Your task to perform on an android device: turn off priority inbox in the gmail app Image 0: 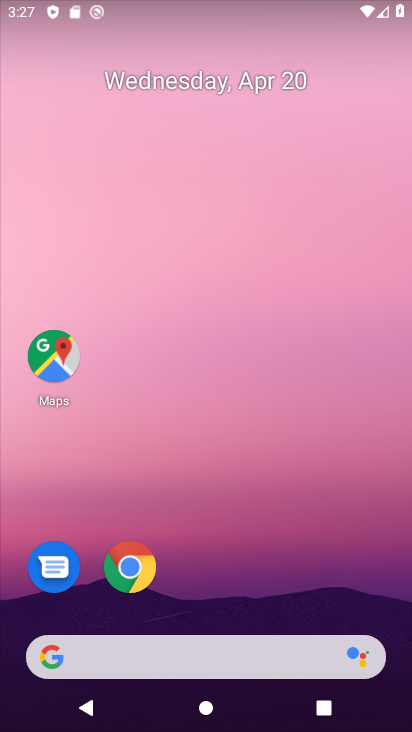
Step 0: drag from (329, 575) to (244, 112)
Your task to perform on an android device: turn off priority inbox in the gmail app Image 1: 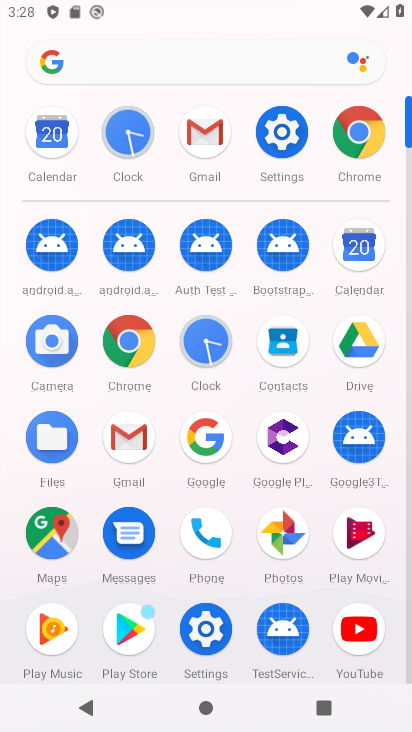
Step 1: click (214, 135)
Your task to perform on an android device: turn off priority inbox in the gmail app Image 2: 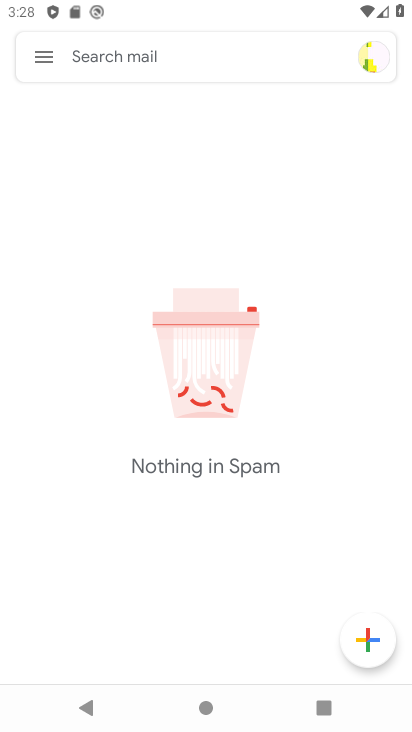
Step 2: click (37, 57)
Your task to perform on an android device: turn off priority inbox in the gmail app Image 3: 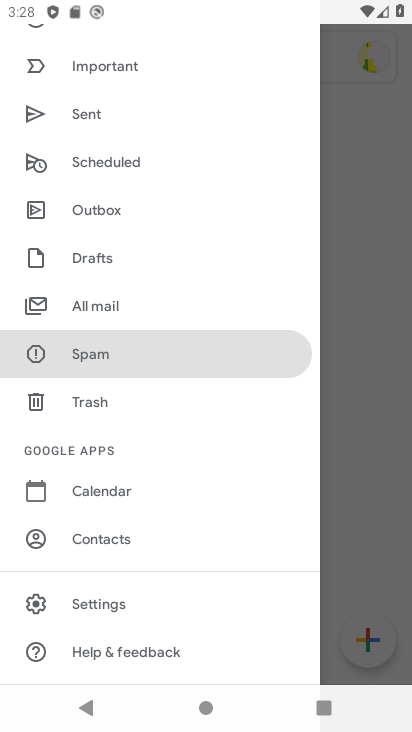
Step 3: click (127, 603)
Your task to perform on an android device: turn off priority inbox in the gmail app Image 4: 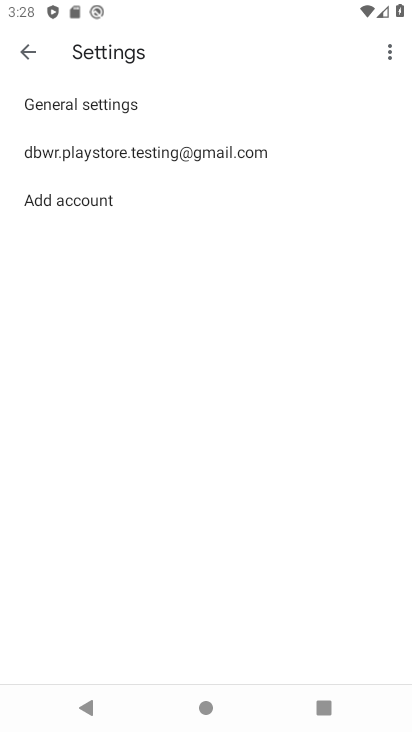
Step 4: click (242, 160)
Your task to perform on an android device: turn off priority inbox in the gmail app Image 5: 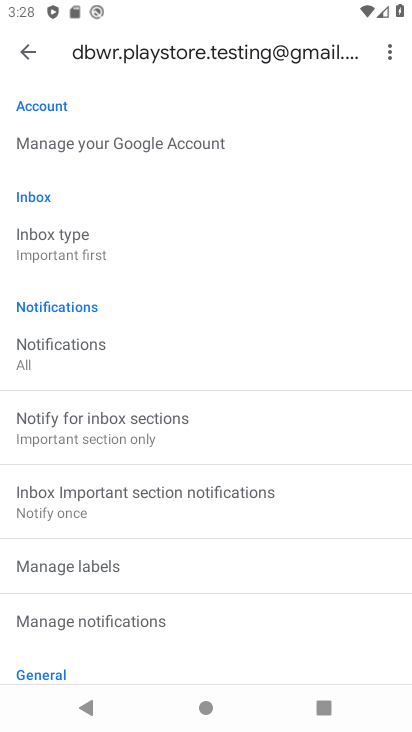
Step 5: click (202, 251)
Your task to perform on an android device: turn off priority inbox in the gmail app Image 6: 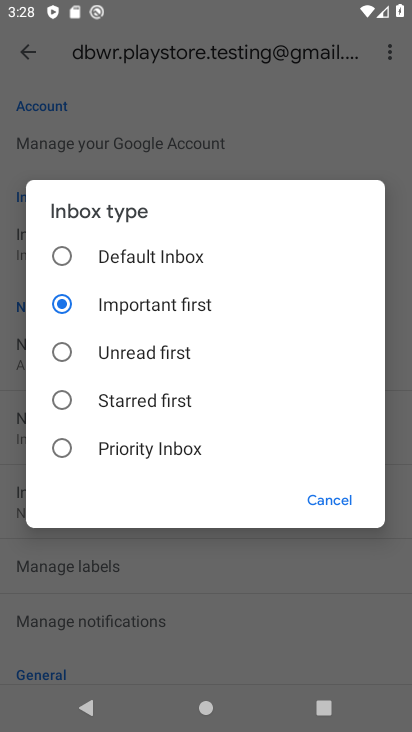
Step 6: task complete